Your task to perform on an android device: find snoozed emails in the gmail app Image 0: 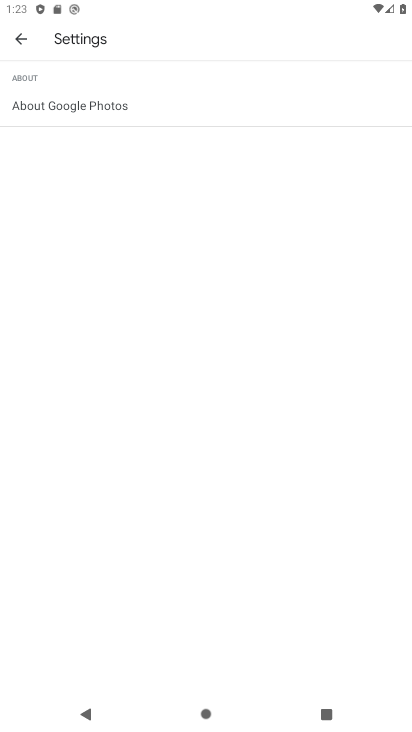
Step 0: press home button
Your task to perform on an android device: find snoozed emails in the gmail app Image 1: 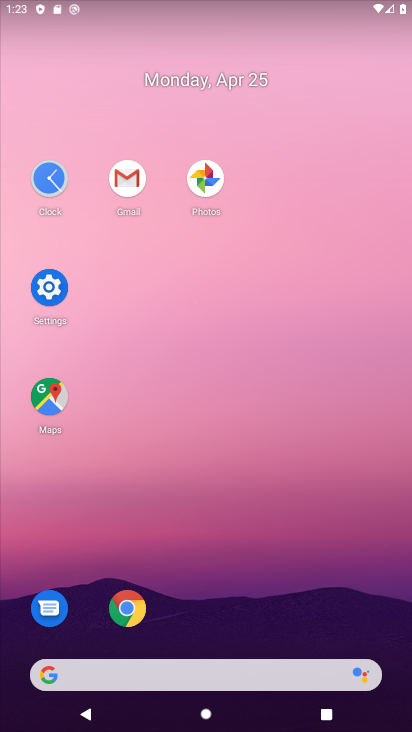
Step 1: click (131, 184)
Your task to perform on an android device: find snoozed emails in the gmail app Image 2: 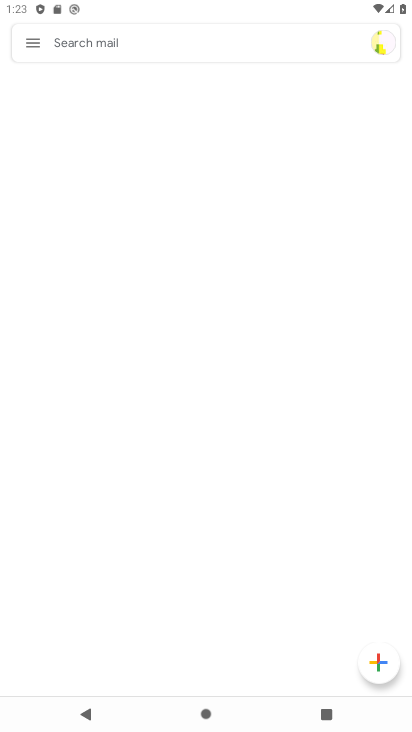
Step 2: click (42, 44)
Your task to perform on an android device: find snoozed emails in the gmail app Image 3: 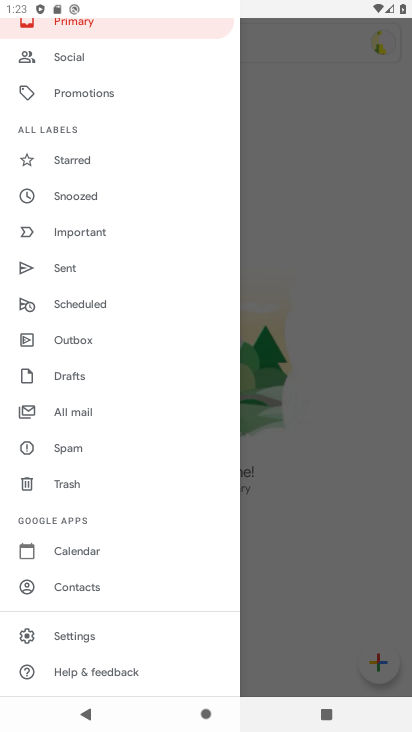
Step 3: click (80, 204)
Your task to perform on an android device: find snoozed emails in the gmail app Image 4: 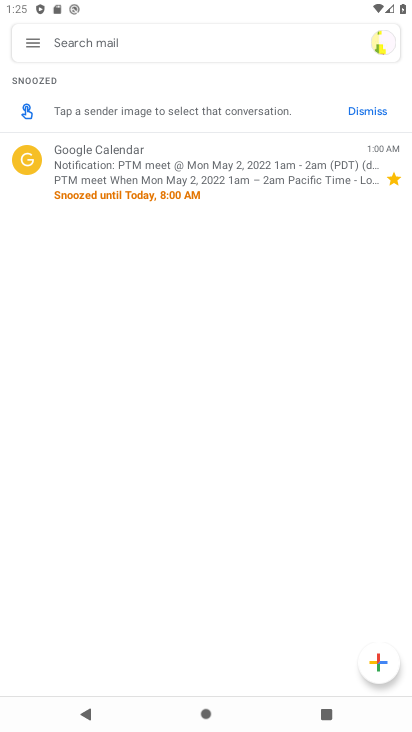
Step 4: task complete